Your task to perform on an android device: turn on the 24-hour format for clock Image 0: 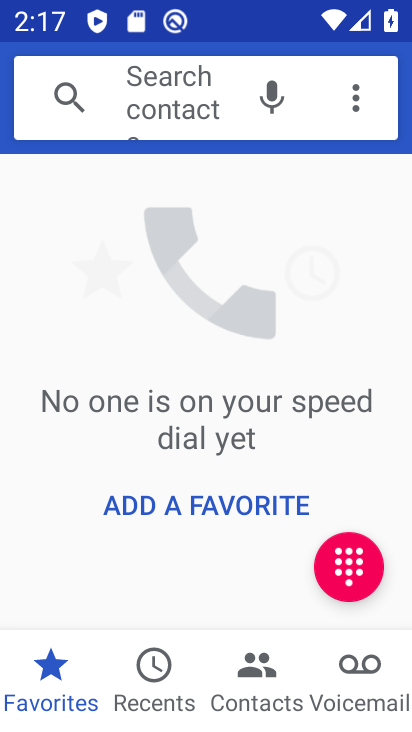
Step 0: press home button
Your task to perform on an android device: turn on the 24-hour format for clock Image 1: 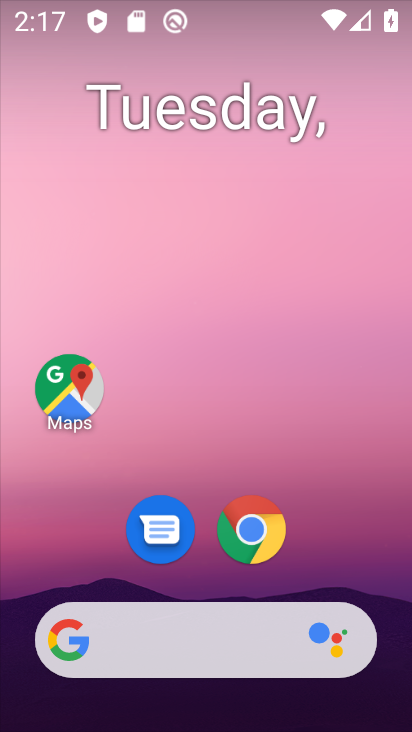
Step 1: drag from (293, 558) to (266, 3)
Your task to perform on an android device: turn on the 24-hour format for clock Image 2: 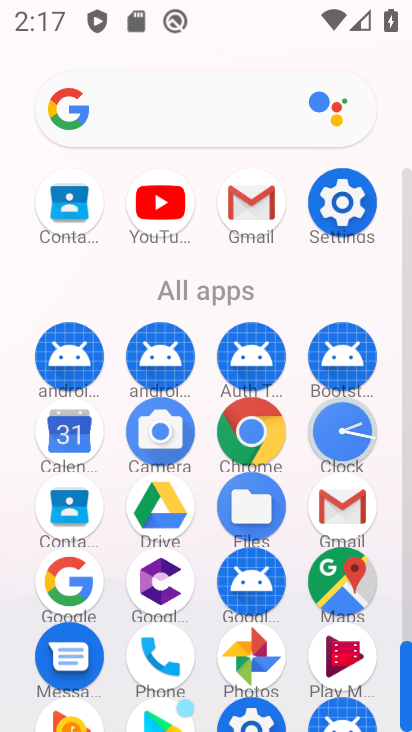
Step 2: click (339, 431)
Your task to perform on an android device: turn on the 24-hour format for clock Image 3: 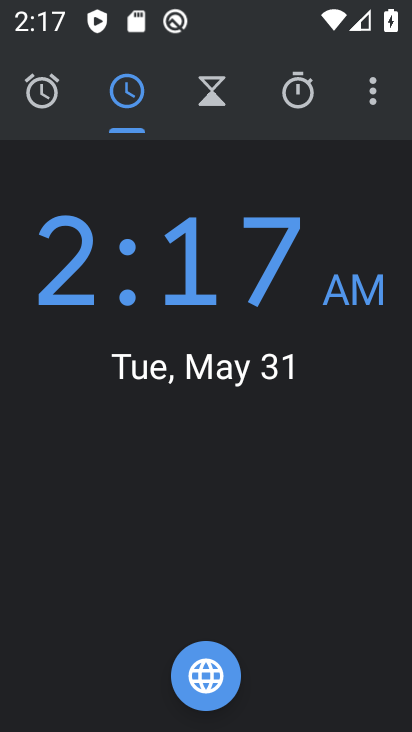
Step 3: click (367, 82)
Your task to perform on an android device: turn on the 24-hour format for clock Image 4: 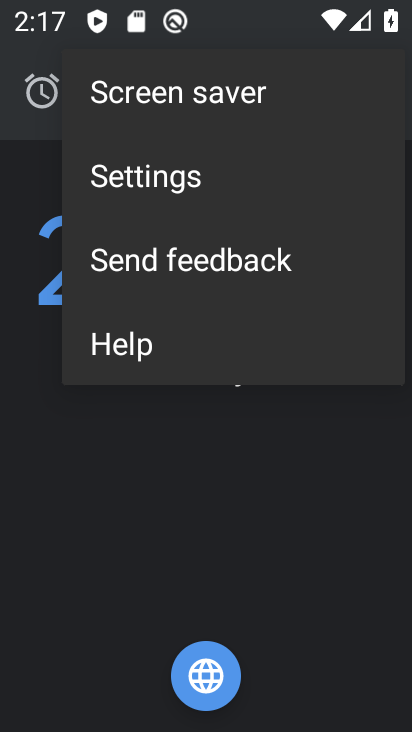
Step 4: click (281, 177)
Your task to perform on an android device: turn on the 24-hour format for clock Image 5: 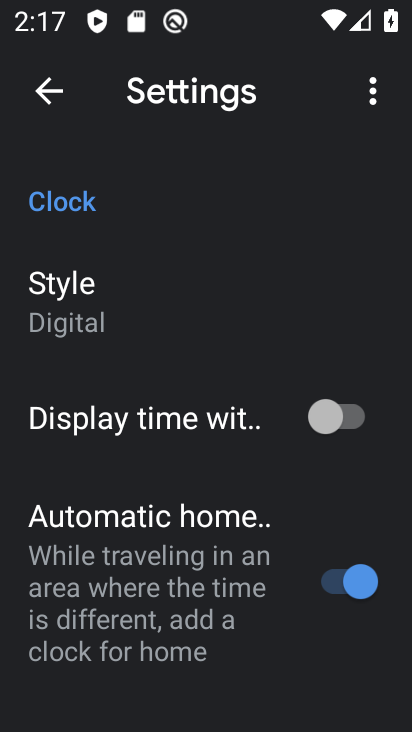
Step 5: drag from (191, 625) to (150, 223)
Your task to perform on an android device: turn on the 24-hour format for clock Image 6: 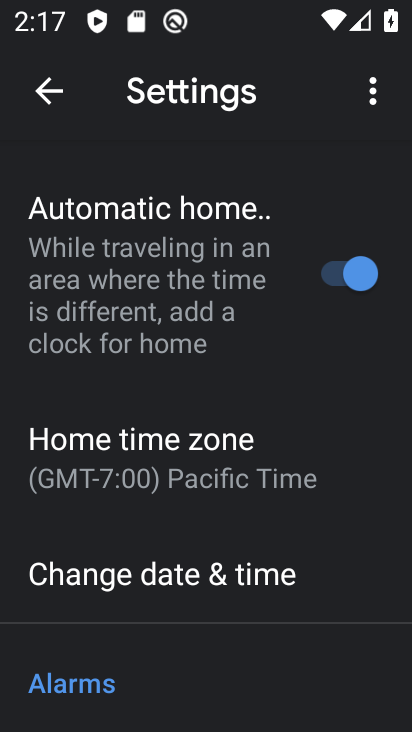
Step 6: click (132, 572)
Your task to perform on an android device: turn on the 24-hour format for clock Image 7: 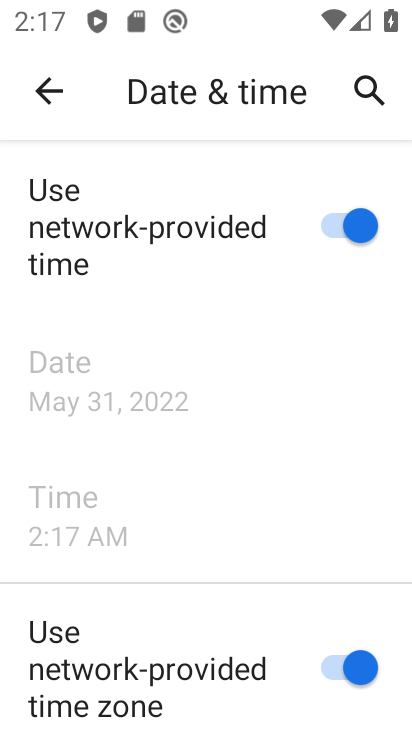
Step 7: drag from (201, 671) to (263, 157)
Your task to perform on an android device: turn on the 24-hour format for clock Image 8: 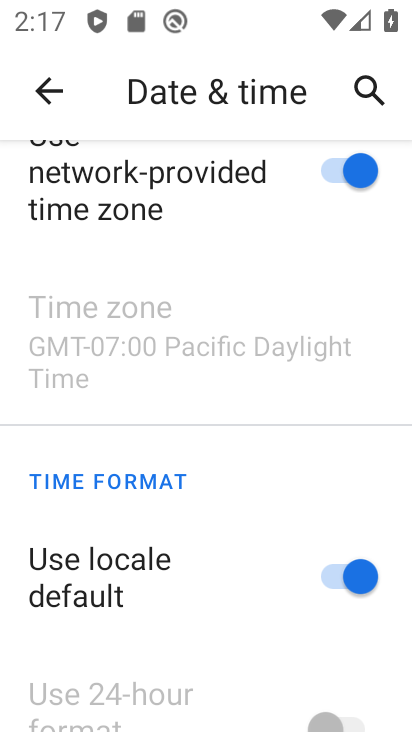
Step 8: drag from (165, 689) to (214, 324)
Your task to perform on an android device: turn on the 24-hour format for clock Image 9: 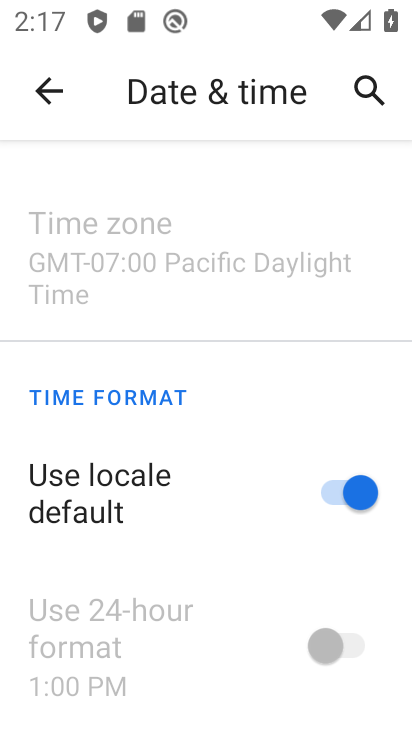
Step 9: click (347, 485)
Your task to perform on an android device: turn on the 24-hour format for clock Image 10: 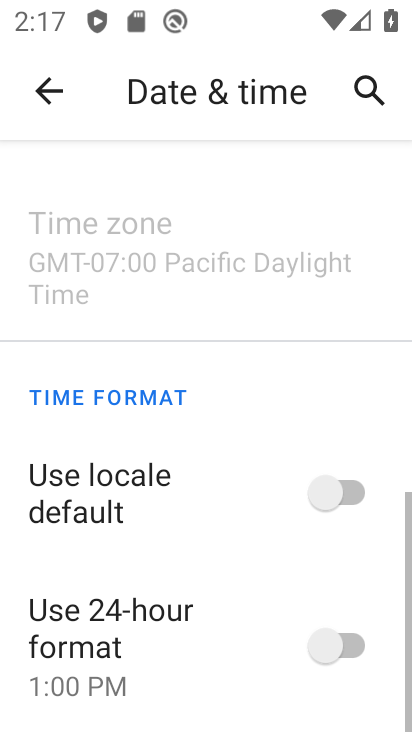
Step 10: click (318, 645)
Your task to perform on an android device: turn on the 24-hour format for clock Image 11: 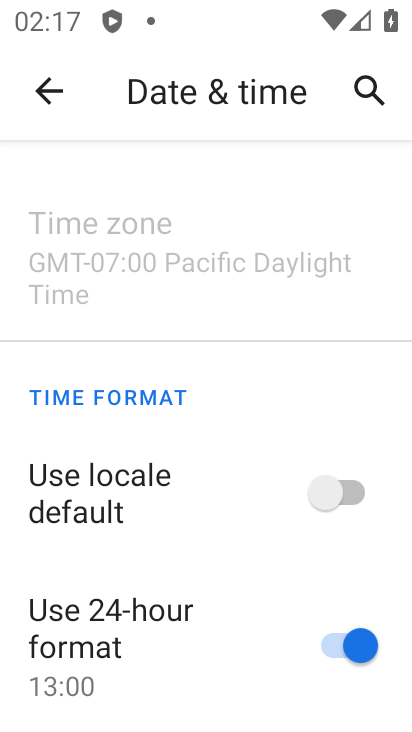
Step 11: task complete